Your task to perform on an android device: Go to ESPN.com Image 0: 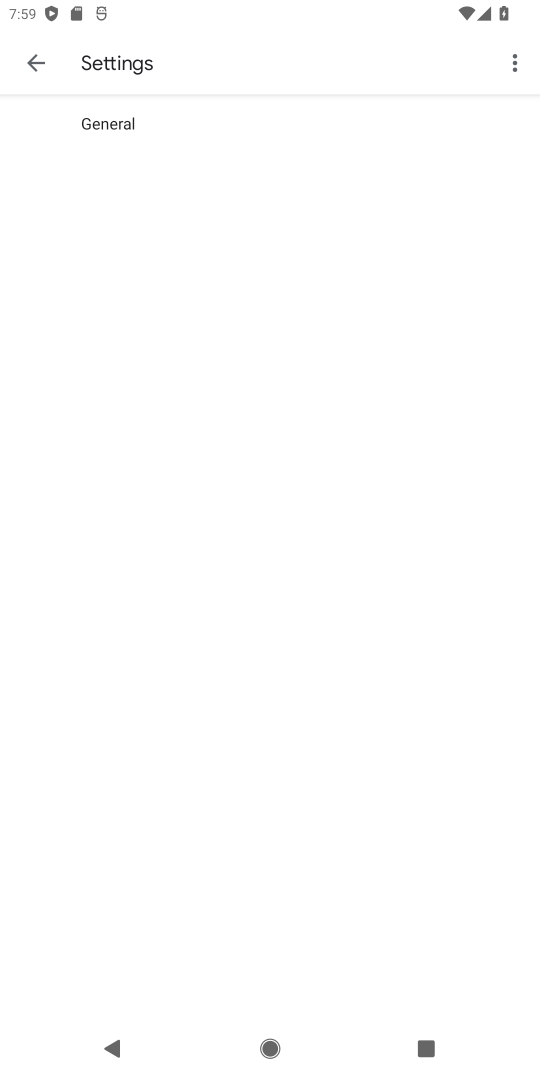
Step 0: press home button
Your task to perform on an android device: Go to ESPN.com Image 1: 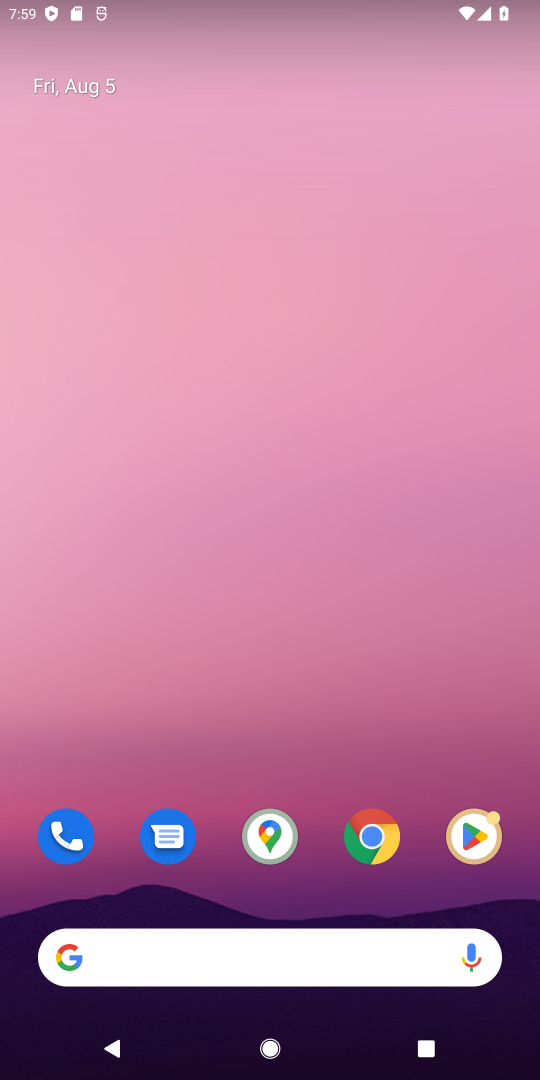
Step 1: click (373, 836)
Your task to perform on an android device: Go to ESPN.com Image 2: 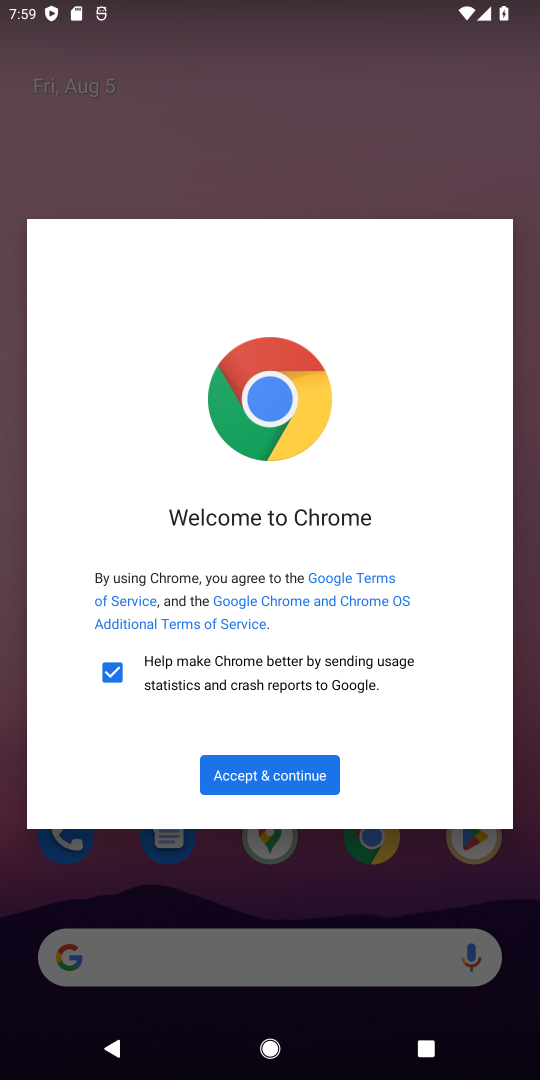
Step 2: click (276, 766)
Your task to perform on an android device: Go to ESPN.com Image 3: 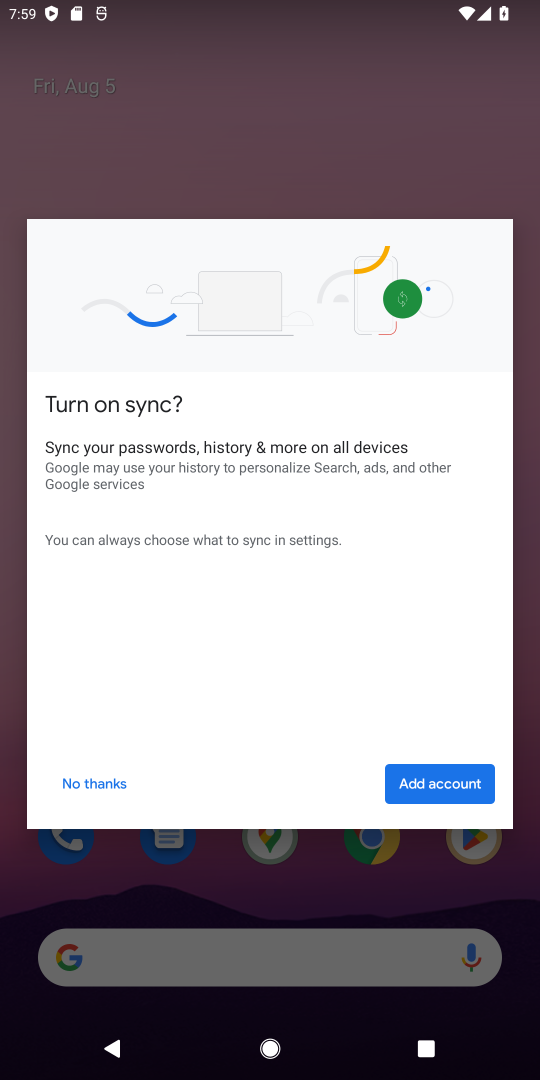
Step 3: click (84, 783)
Your task to perform on an android device: Go to ESPN.com Image 4: 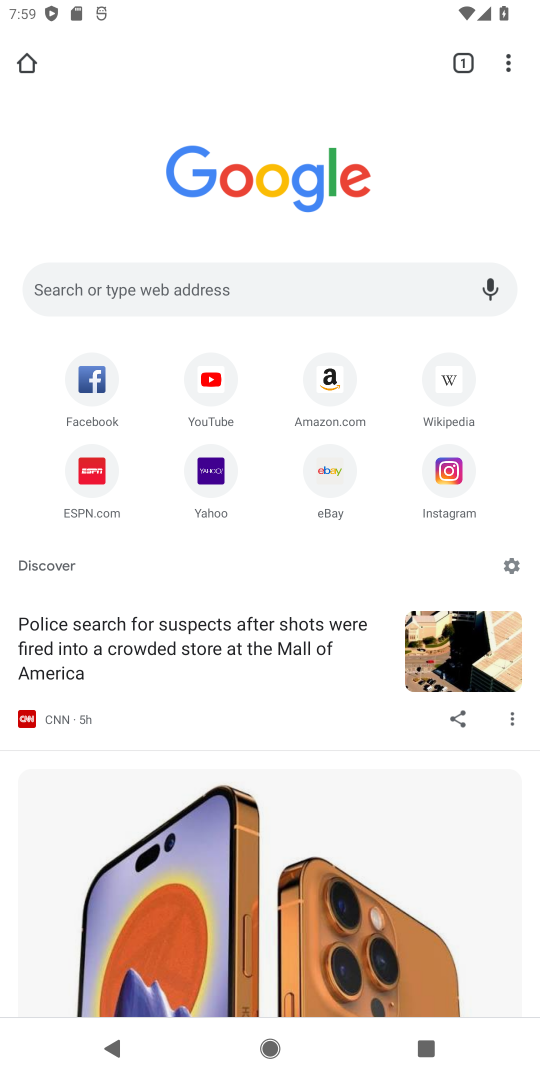
Step 4: click (260, 281)
Your task to perform on an android device: Go to ESPN.com Image 5: 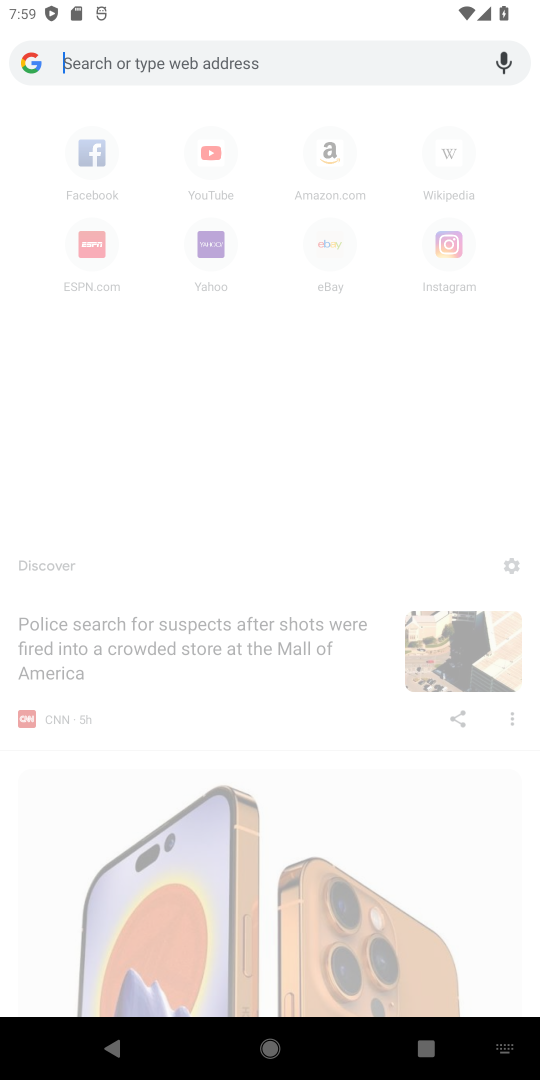
Step 5: click (95, 256)
Your task to perform on an android device: Go to ESPN.com Image 6: 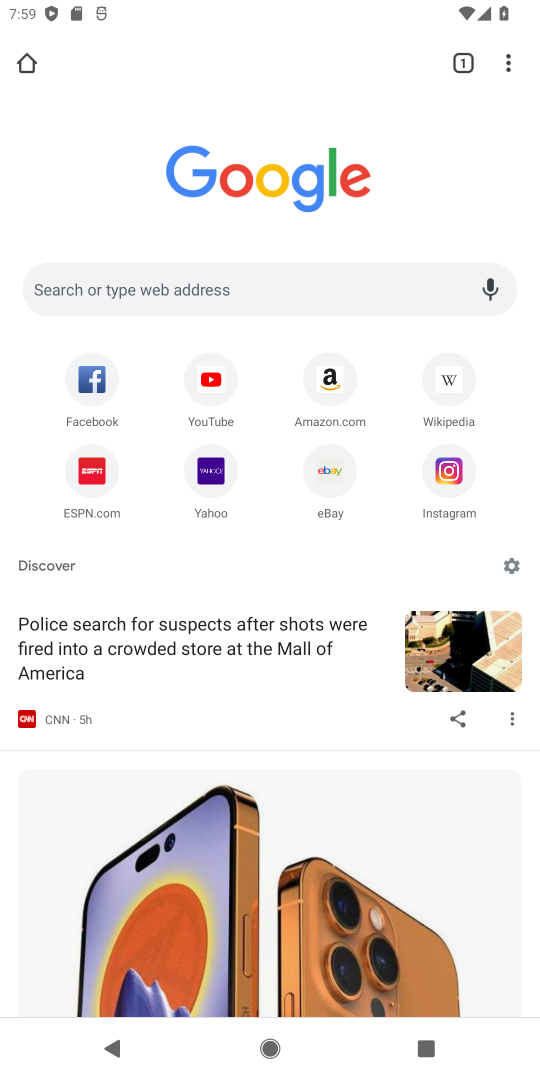
Step 6: click (90, 481)
Your task to perform on an android device: Go to ESPN.com Image 7: 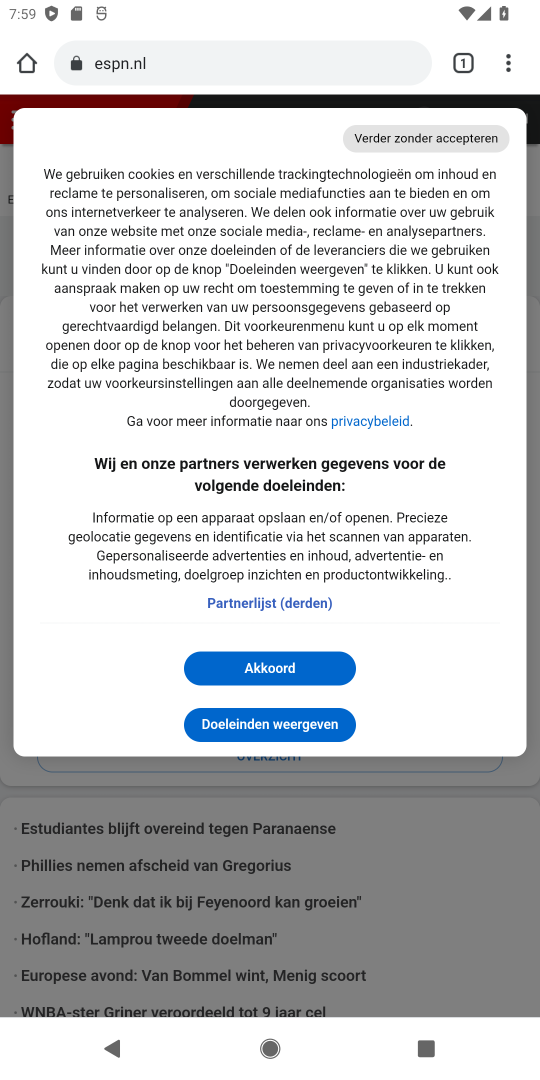
Step 7: click (282, 660)
Your task to perform on an android device: Go to ESPN.com Image 8: 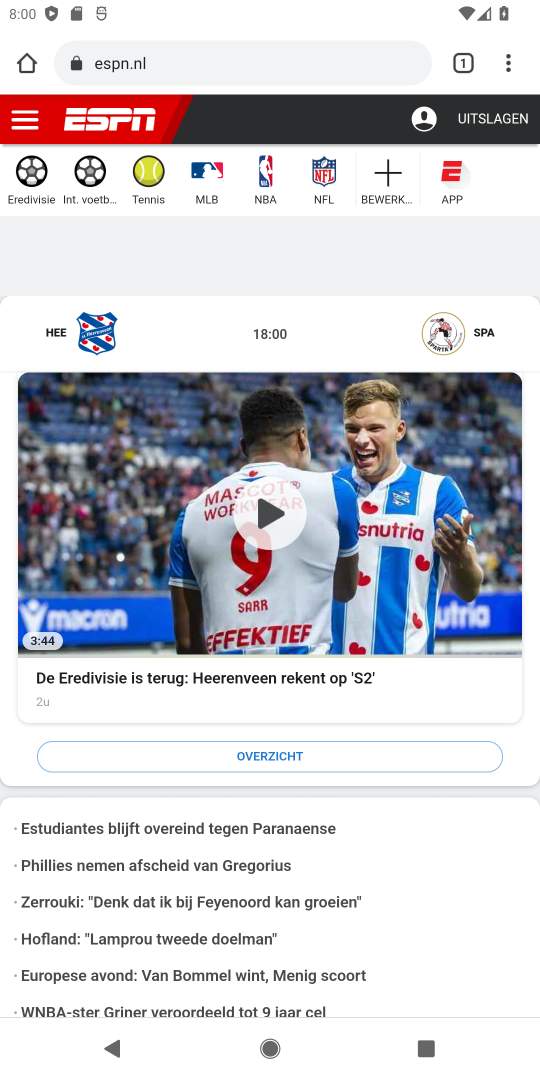
Step 8: task complete